Your task to perform on an android device: see sites visited before in the chrome app Image 0: 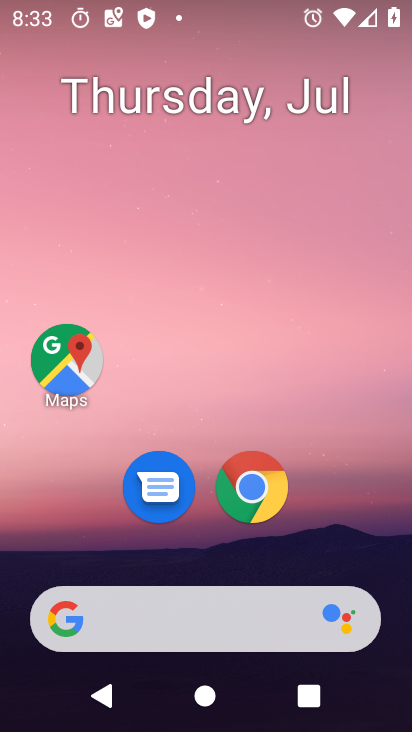
Step 0: drag from (254, 396) to (378, 112)
Your task to perform on an android device: see sites visited before in the chrome app Image 1: 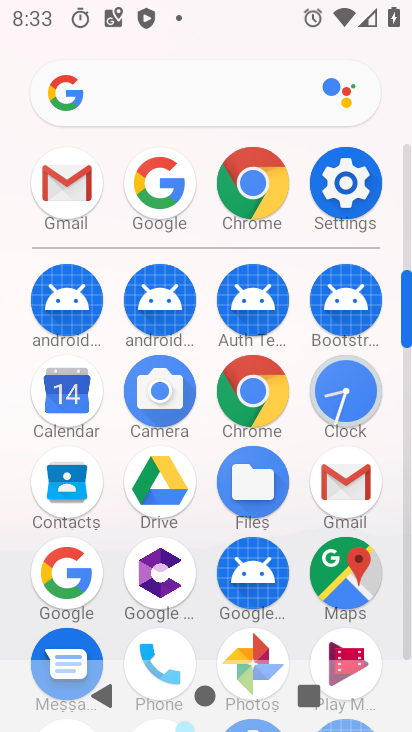
Step 1: click (254, 211)
Your task to perform on an android device: see sites visited before in the chrome app Image 2: 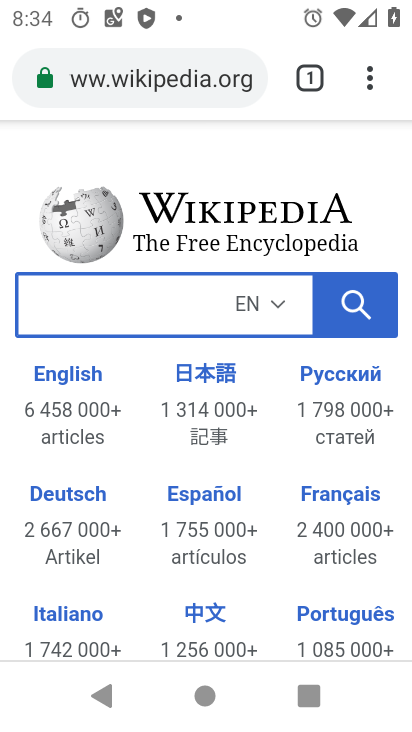
Step 2: click (368, 94)
Your task to perform on an android device: see sites visited before in the chrome app Image 3: 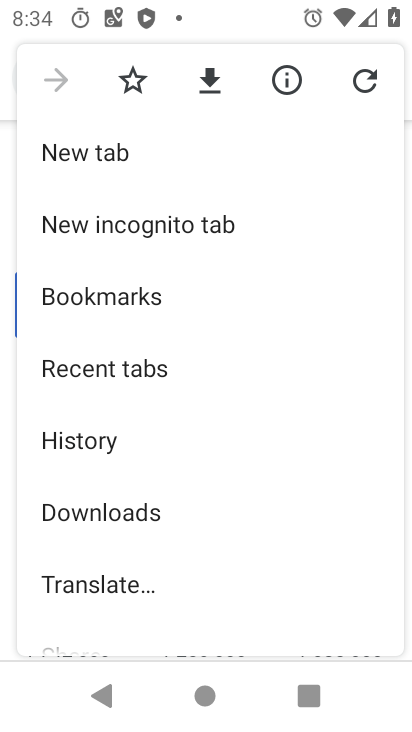
Step 3: drag from (258, 462) to (270, 253)
Your task to perform on an android device: see sites visited before in the chrome app Image 4: 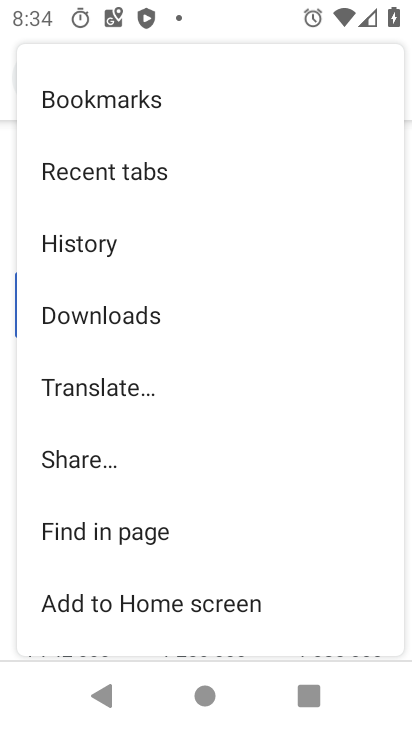
Step 4: click (77, 257)
Your task to perform on an android device: see sites visited before in the chrome app Image 5: 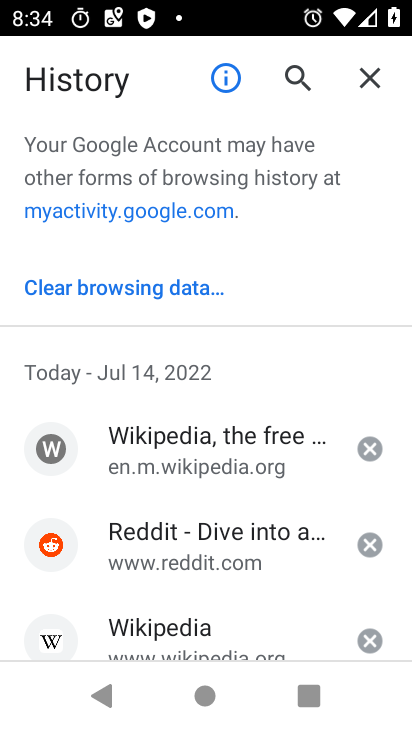
Step 5: task complete